Your task to perform on an android device: turn on translation in the chrome app Image 0: 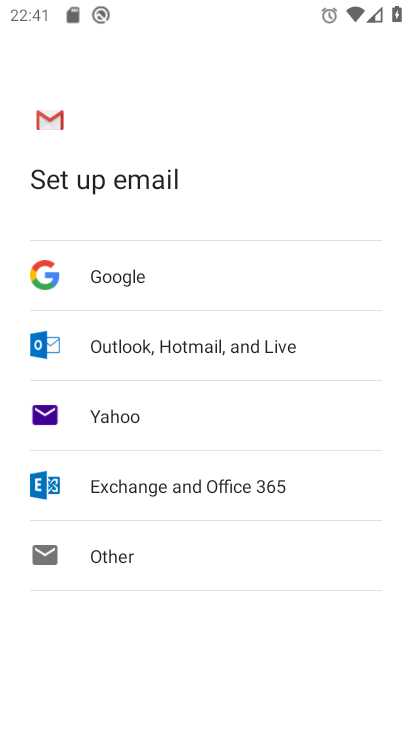
Step 0: press home button
Your task to perform on an android device: turn on translation in the chrome app Image 1: 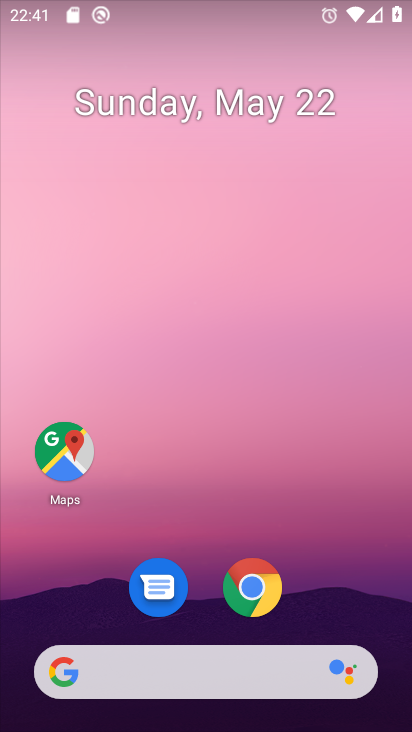
Step 1: click (256, 584)
Your task to perform on an android device: turn on translation in the chrome app Image 2: 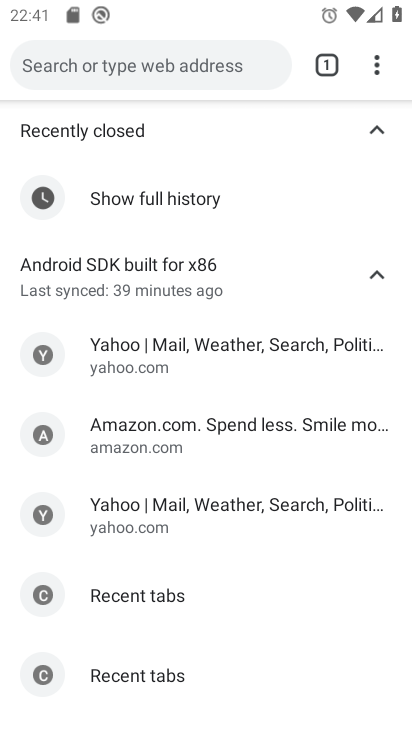
Step 2: click (377, 67)
Your task to perform on an android device: turn on translation in the chrome app Image 3: 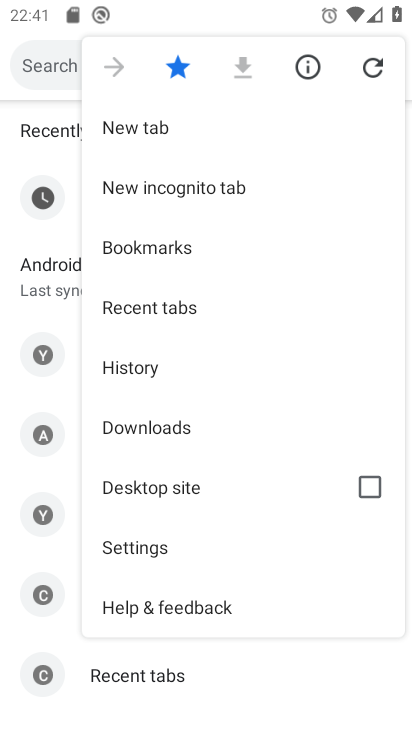
Step 3: click (193, 548)
Your task to perform on an android device: turn on translation in the chrome app Image 4: 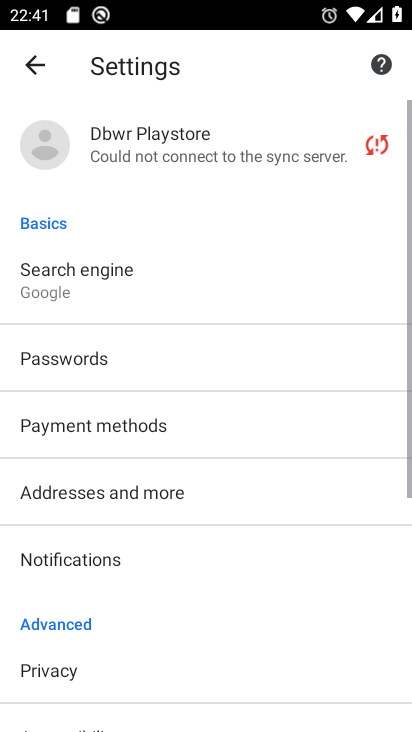
Step 4: drag from (193, 544) to (245, 195)
Your task to perform on an android device: turn on translation in the chrome app Image 5: 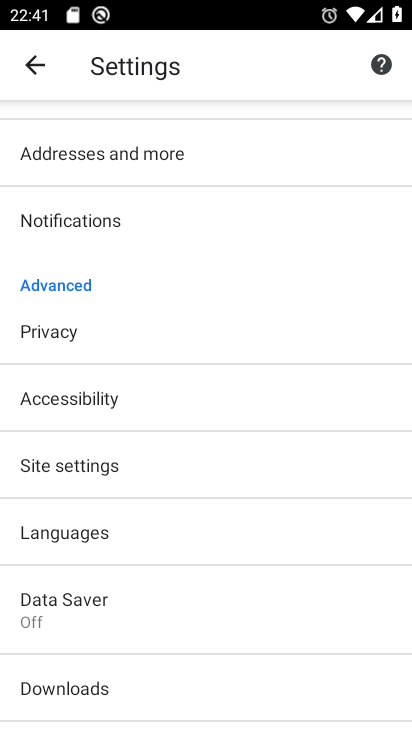
Step 5: click (213, 533)
Your task to perform on an android device: turn on translation in the chrome app Image 6: 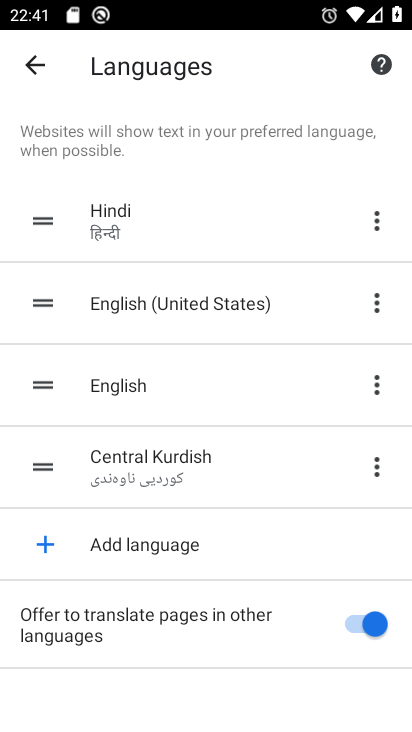
Step 6: task complete